Your task to perform on an android device: Search for flights from NYC to Mexico city Image 0: 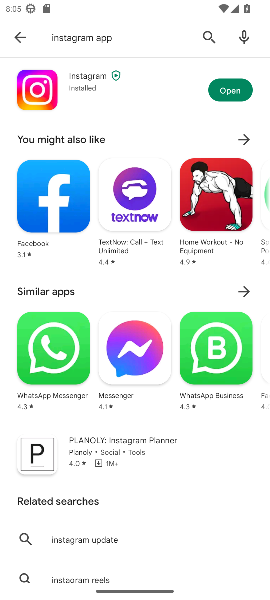
Step 0: press home button
Your task to perform on an android device: Search for flights from NYC to Mexico city Image 1: 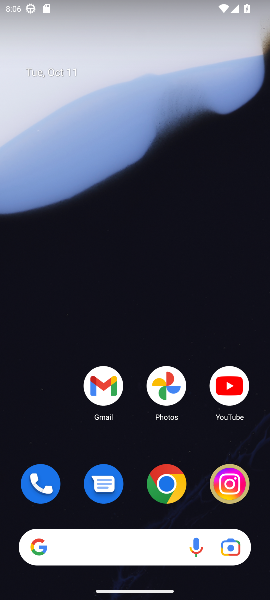
Step 1: click (166, 486)
Your task to perform on an android device: Search for flights from NYC to Mexico city Image 2: 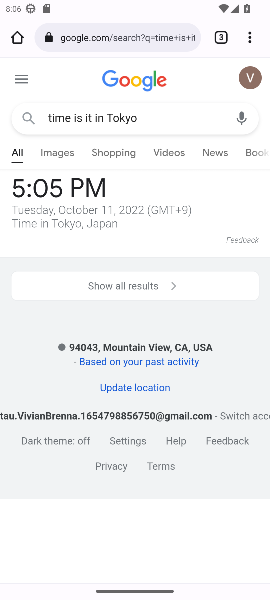
Step 2: click (170, 40)
Your task to perform on an android device: Search for flights from NYC to Mexico city Image 3: 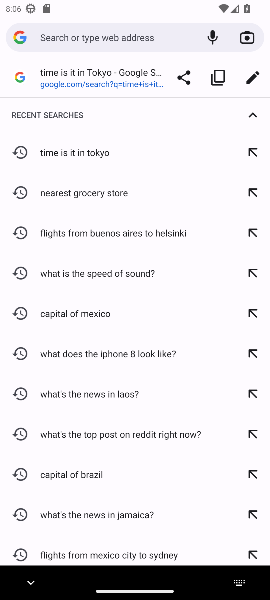
Step 3: type "flights from NYC to Mexico"
Your task to perform on an android device: Search for flights from NYC to Mexico city Image 4: 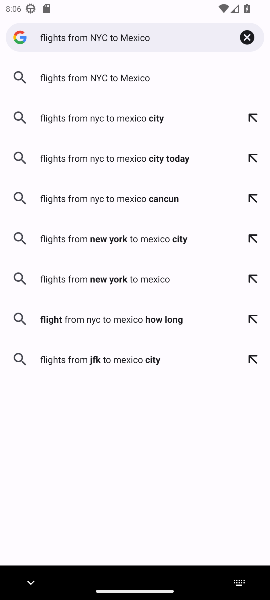
Step 4: click (125, 77)
Your task to perform on an android device: Search for flights from NYC to Mexico city Image 5: 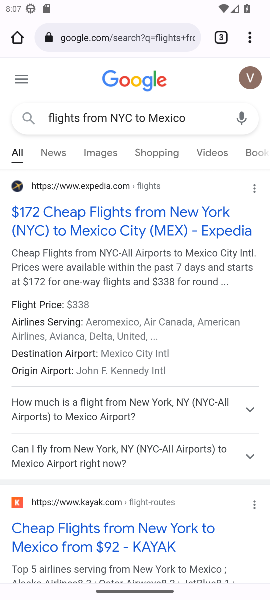
Step 5: drag from (151, 490) to (221, 264)
Your task to perform on an android device: Search for flights from NYC to Mexico city Image 6: 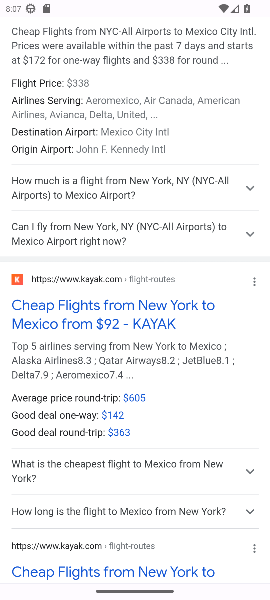
Step 6: drag from (133, 490) to (179, 381)
Your task to perform on an android device: Search for flights from NYC to Mexico city Image 7: 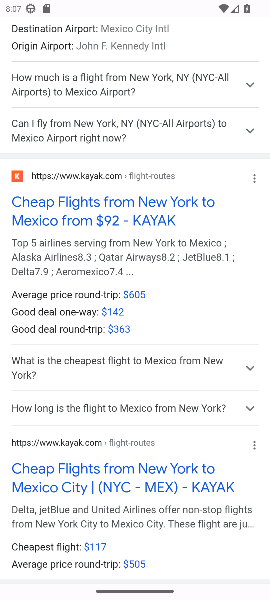
Step 7: drag from (161, 551) to (212, 372)
Your task to perform on an android device: Search for flights from NYC to Mexico city Image 8: 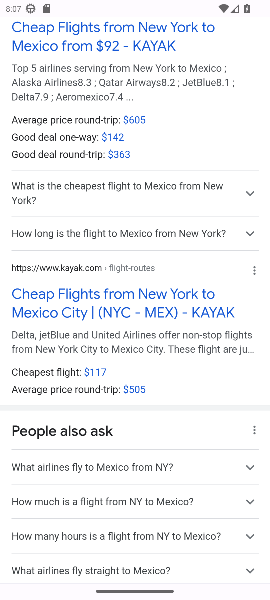
Step 8: drag from (149, 515) to (201, 368)
Your task to perform on an android device: Search for flights from NYC to Mexico city Image 9: 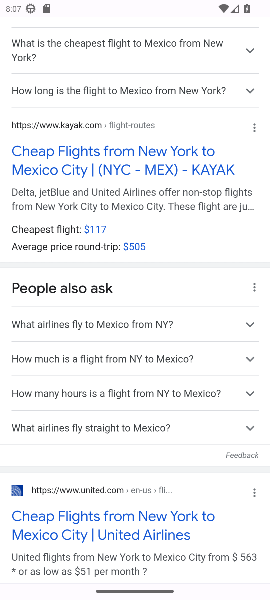
Step 9: drag from (206, 374) to (202, 340)
Your task to perform on an android device: Search for flights from NYC to Mexico city Image 10: 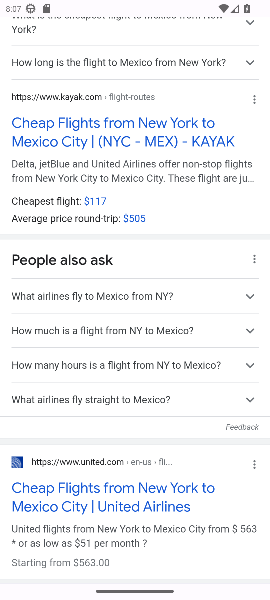
Step 10: drag from (162, 546) to (172, 326)
Your task to perform on an android device: Search for flights from NYC to Mexico city Image 11: 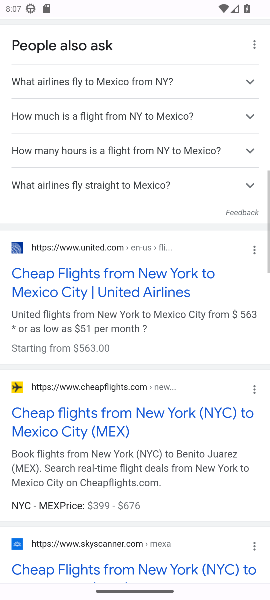
Step 11: drag from (148, 493) to (164, 326)
Your task to perform on an android device: Search for flights from NYC to Mexico city Image 12: 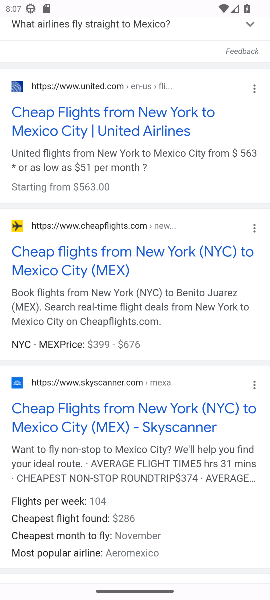
Step 12: drag from (134, 515) to (202, 294)
Your task to perform on an android device: Search for flights from NYC to Mexico city Image 13: 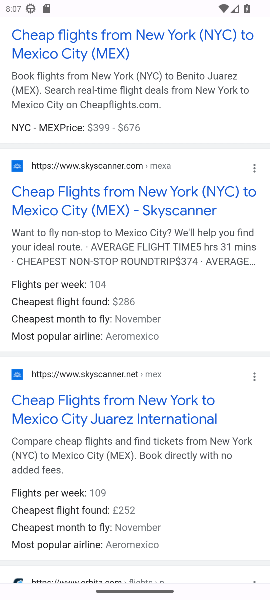
Step 13: click (167, 259)
Your task to perform on an android device: Search for flights from NYC to Mexico city Image 14: 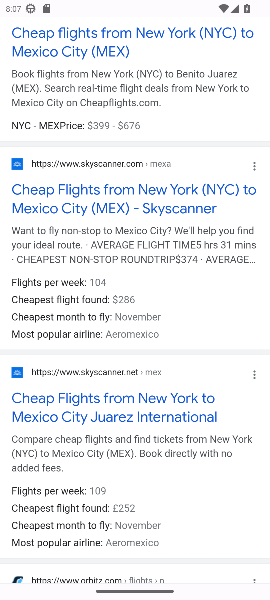
Step 14: drag from (144, 529) to (200, 230)
Your task to perform on an android device: Search for flights from NYC to Mexico city Image 15: 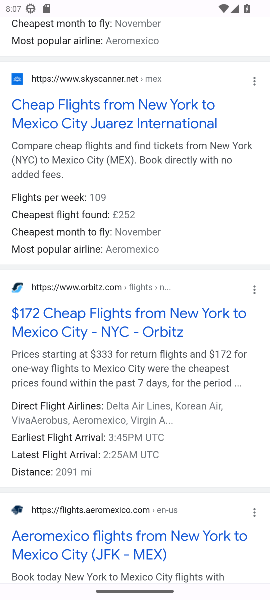
Step 15: drag from (173, 94) to (122, 449)
Your task to perform on an android device: Search for flights from NYC to Mexico city Image 16: 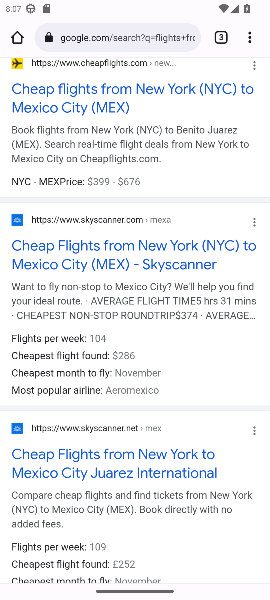
Step 16: drag from (174, 114) to (100, 473)
Your task to perform on an android device: Search for flights from NYC to Mexico city Image 17: 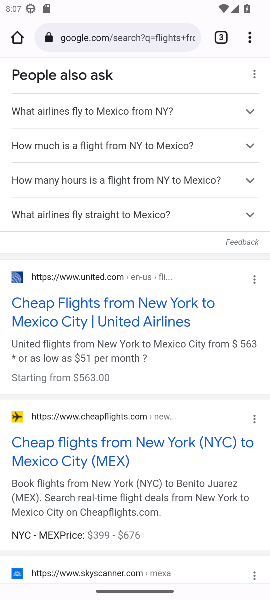
Step 17: drag from (181, 93) to (160, 436)
Your task to perform on an android device: Search for flights from NYC to Mexico city Image 18: 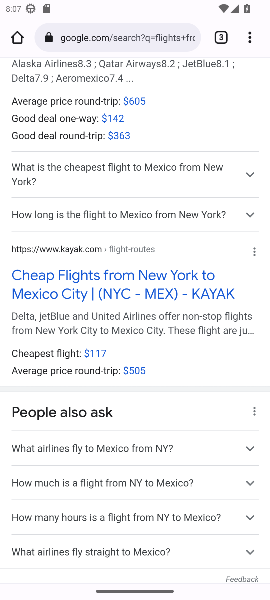
Step 18: drag from (168, 120) to (160, 443)
Your task to perform on an android device: Search for flights from NYC to Mexico city Image 19: 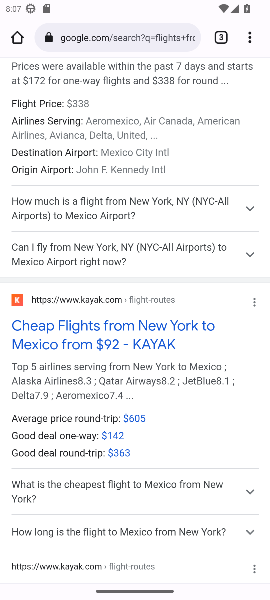
Step 19: drag from (146, 139) to (147, 459)
Your task to perform on an android device: Search for flights from NYC to Mexico city Image 20: 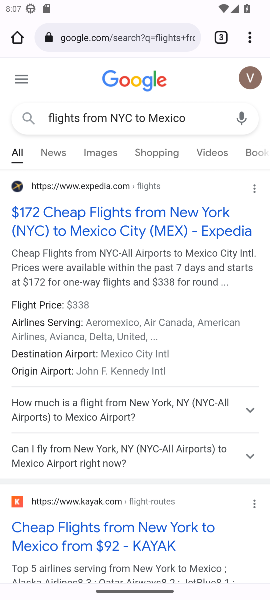
Step 20: click (188, 225)
Your task to perform on an android device: Search for flights from NYC to Mexico city Image 21: 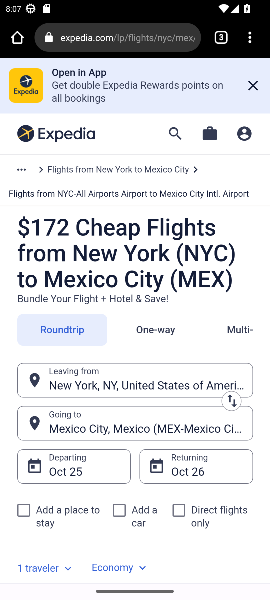
Step 21: task complete